Your task to perform on an android device: turn off smart reply in the gmail app Image 0: 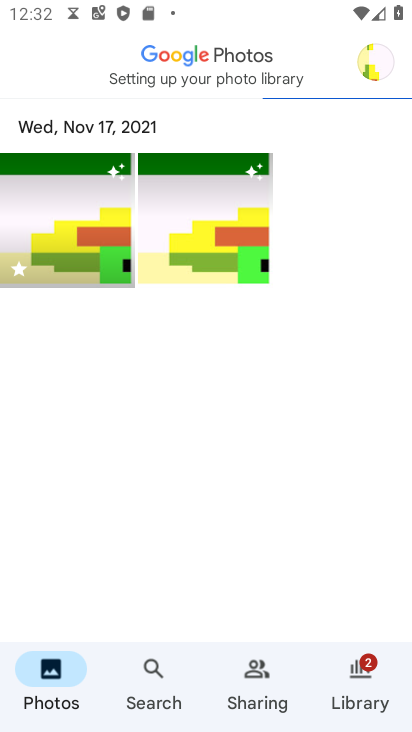
Step 0: press home button
Your task to perform on an android device: turn off smart reply in the gmail app Image 1: 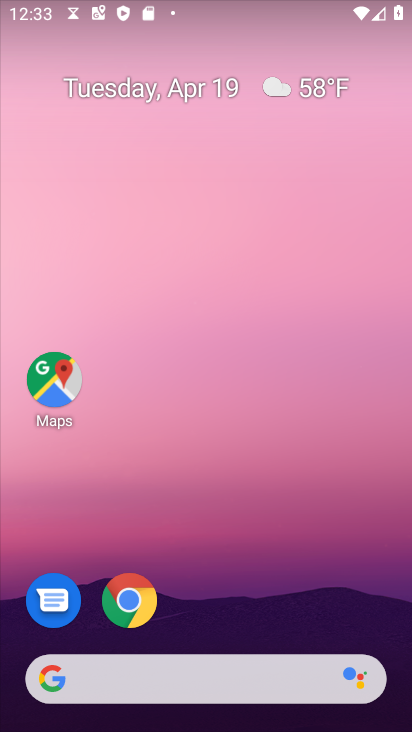
Step 1: drag from (244, 687) to (168, 282)
Your task to perform on an android device: turn off smart reply in the gmail app Image 2: 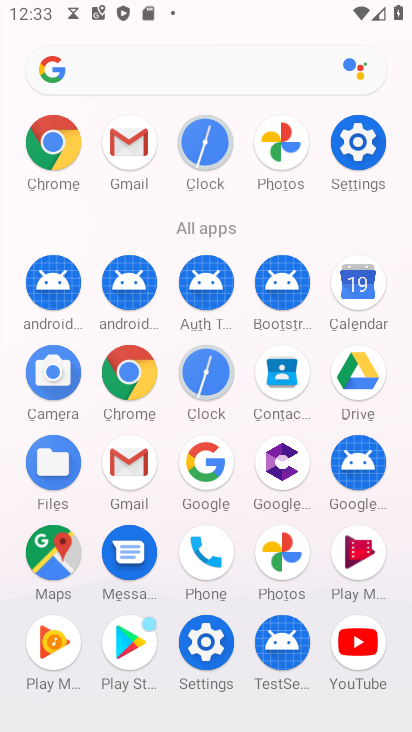
Step 2: click (129, 475)
Your task to perform on an android device: turn off smart reply in the gmail app Image 3: 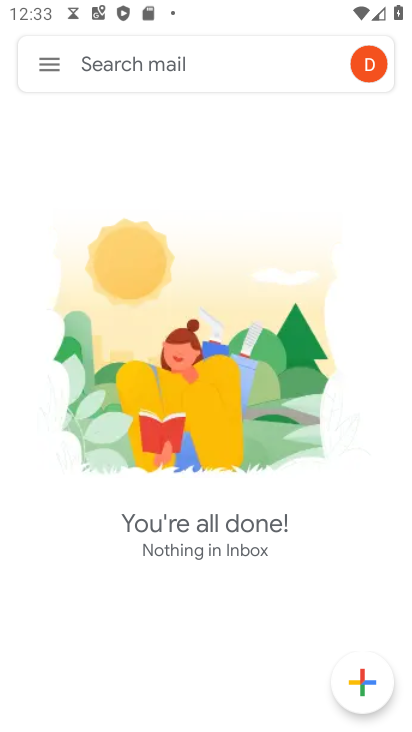
Step 3: click (43, 67)
Your task to perform on an android device: turn off smart reply in the gmail app Image 4: 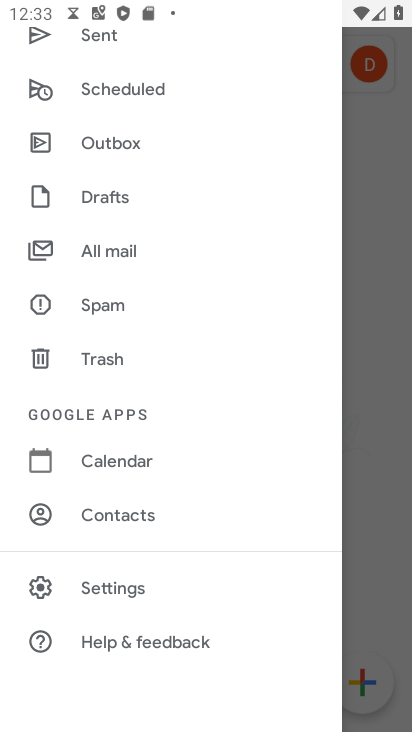
Step 4: click (131, 585)
Your task to perform on an android device: turn off smart reply in the gmail app Image 5: 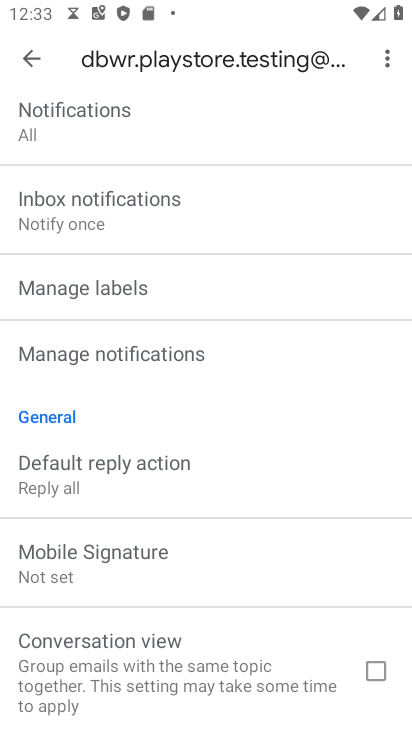
Step 5: drag from (256, 605) to (196, 171)
Your task to perform on an android device: turn off smart reply in the gmail app Image 6: 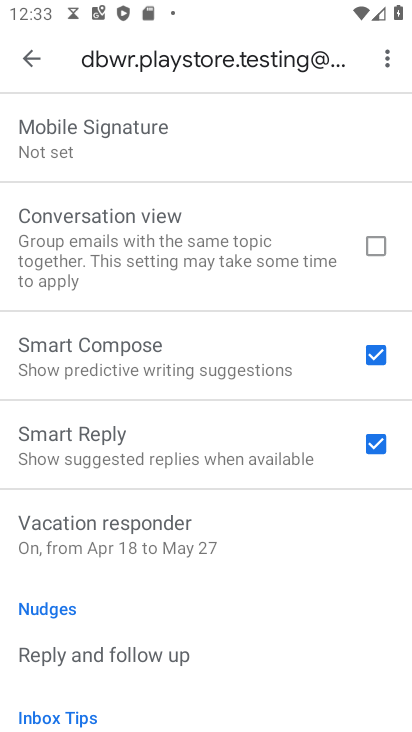
Step 6: click (381, 440)
Your task to perform on an android device: turn off smart reply in the gmail app Image 7: 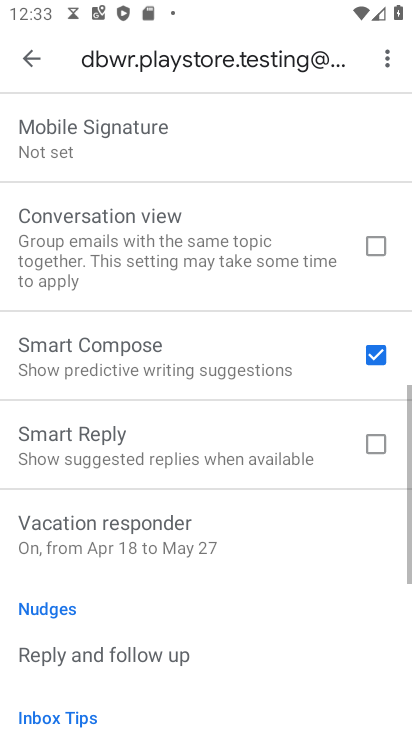
Step 7: task complete